Your task to perform on an android device: open app "VLC for Android" Image 0: 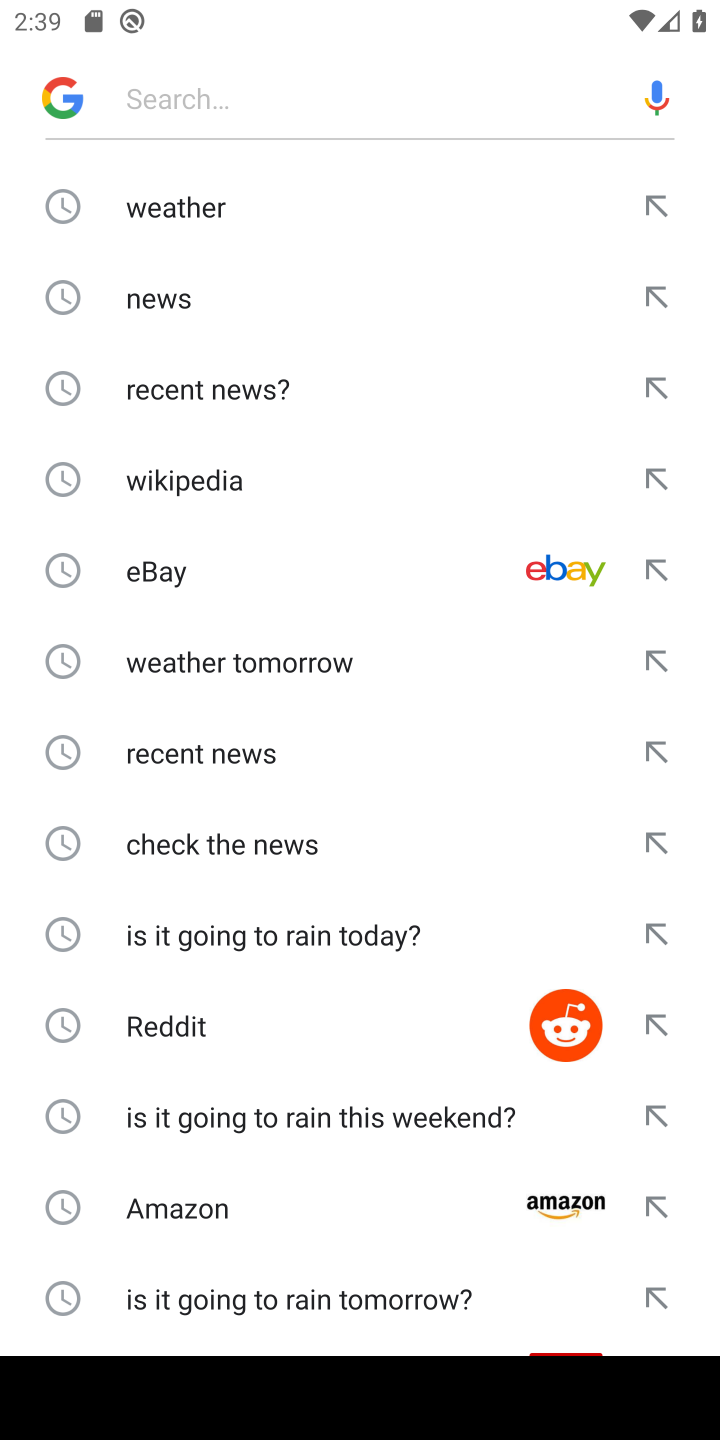
Step 0: press home button
Your task to perform on an android device: open app "VLC for Android" Image 1: 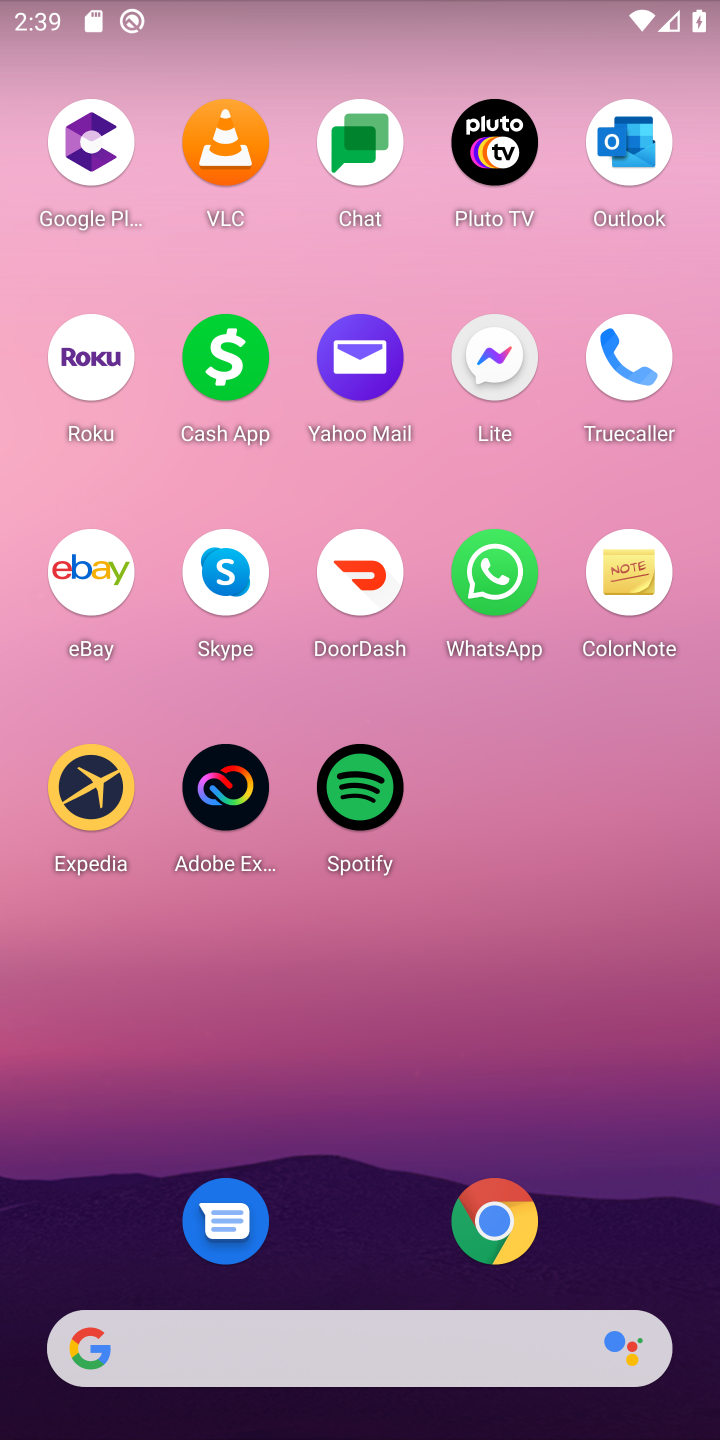
Step 1: drag from (358, 1242) to (383, 33)
Your task to perform on an android device: open app "VLC for Android" Image 2: 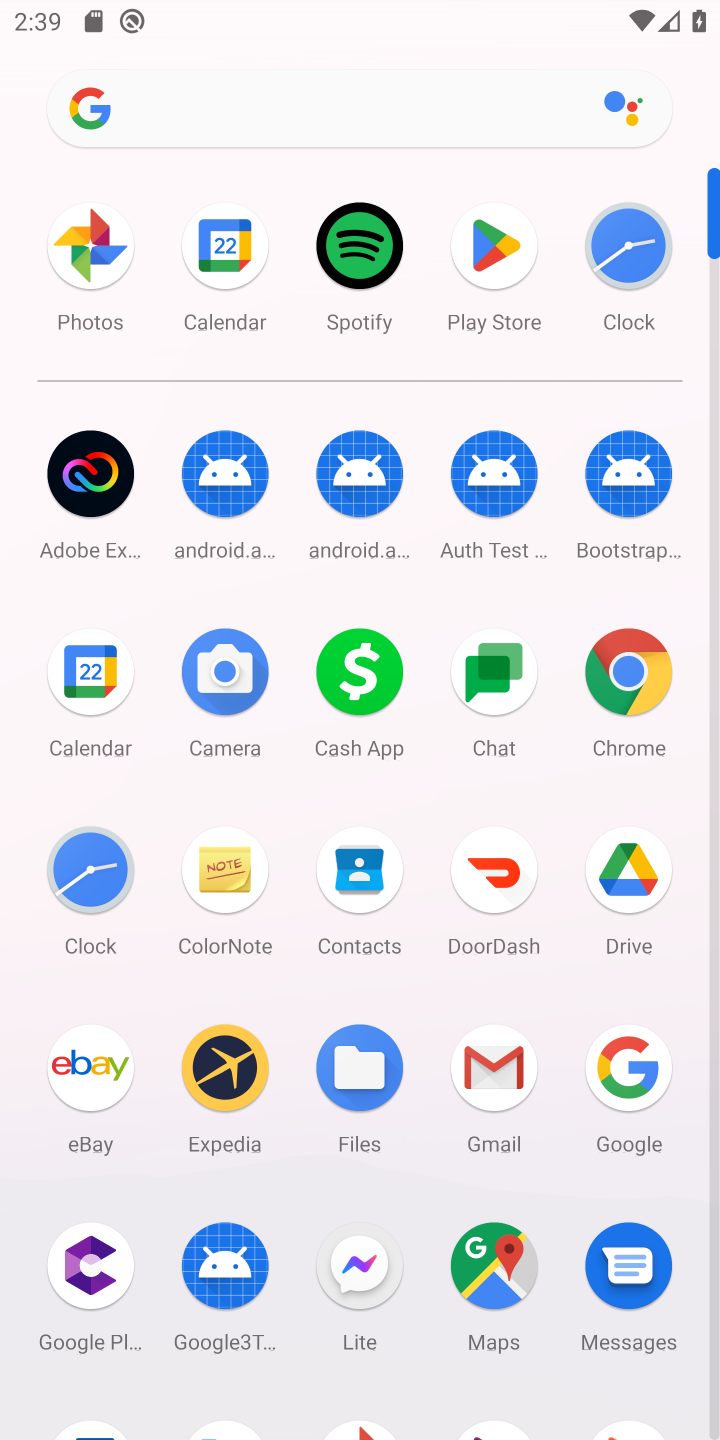
Step 2: drag from (385, 1112) to (405, 108)
Your task to perform on an android device: open app "VLC for Android" Image 3: 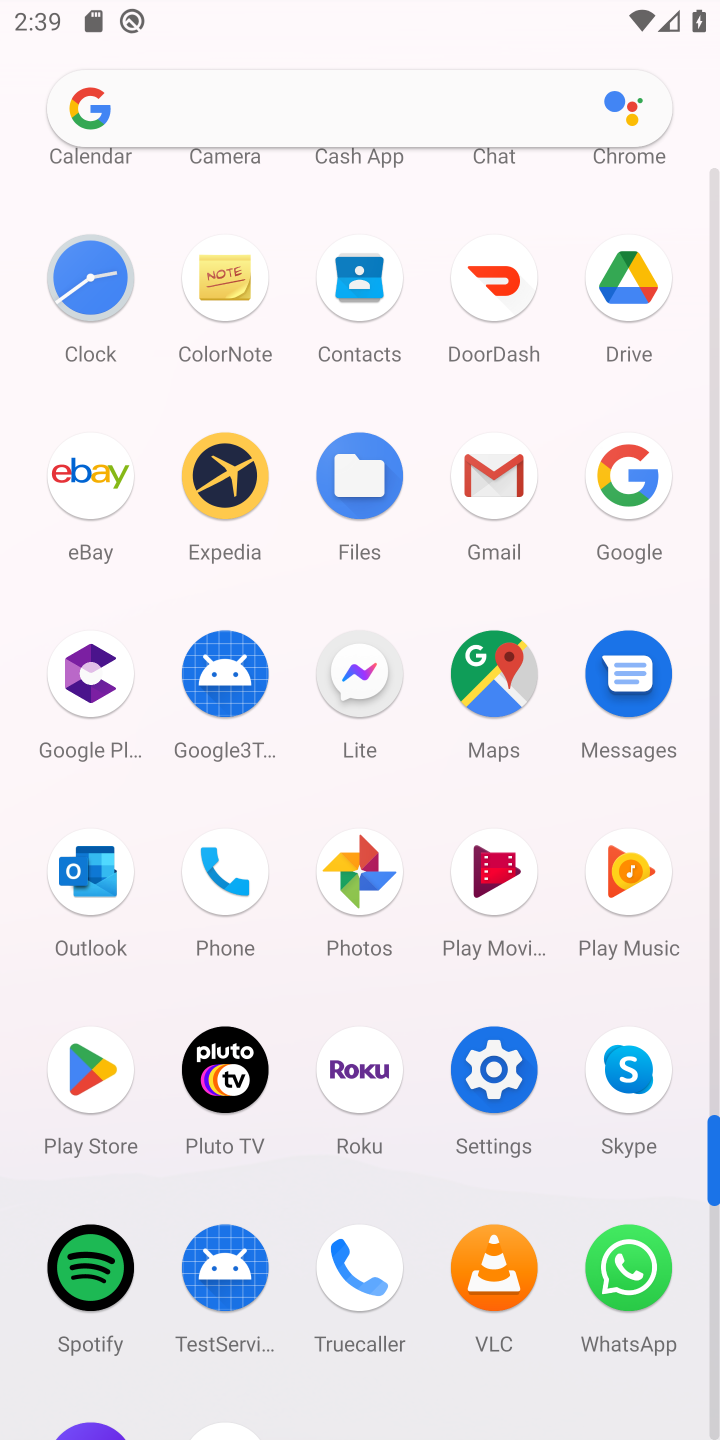
Step 3: click (90, 1063)
Your task to perform on an android device: open app "VLC for Android" Image 4: 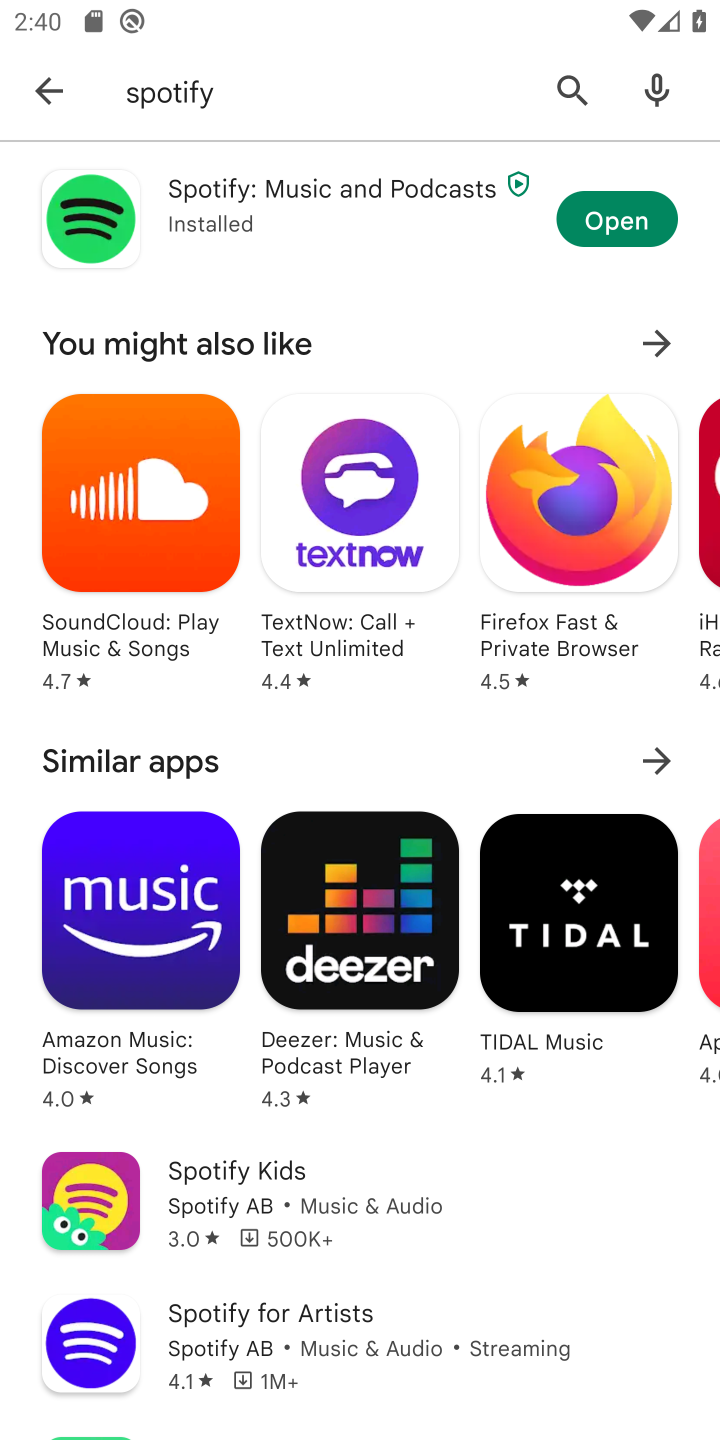
Step 4: click (563, 85)
Your task to perform on an android device: open app "VLC for Android" Image 5: 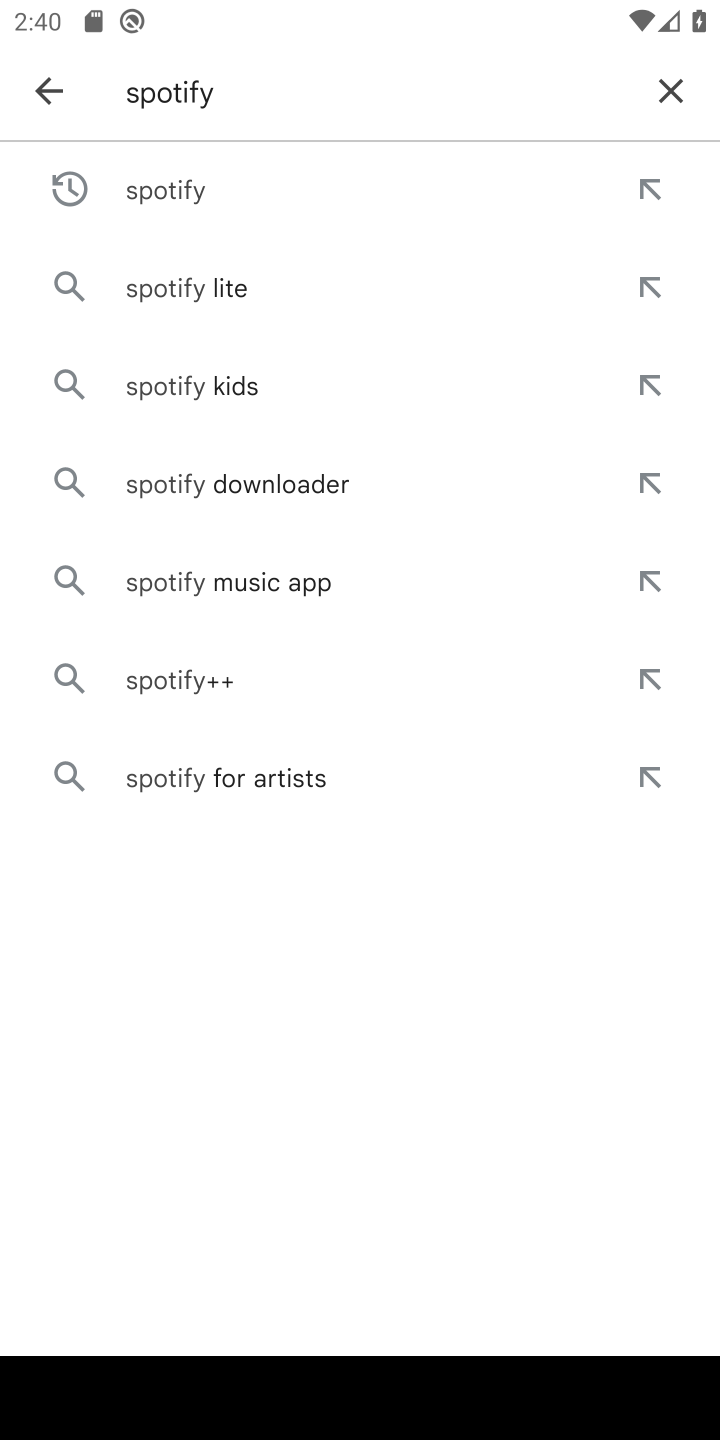
Step 5: click (673, 94)
Your task to perform on an android device: open app "VLC for Android" Image 6: 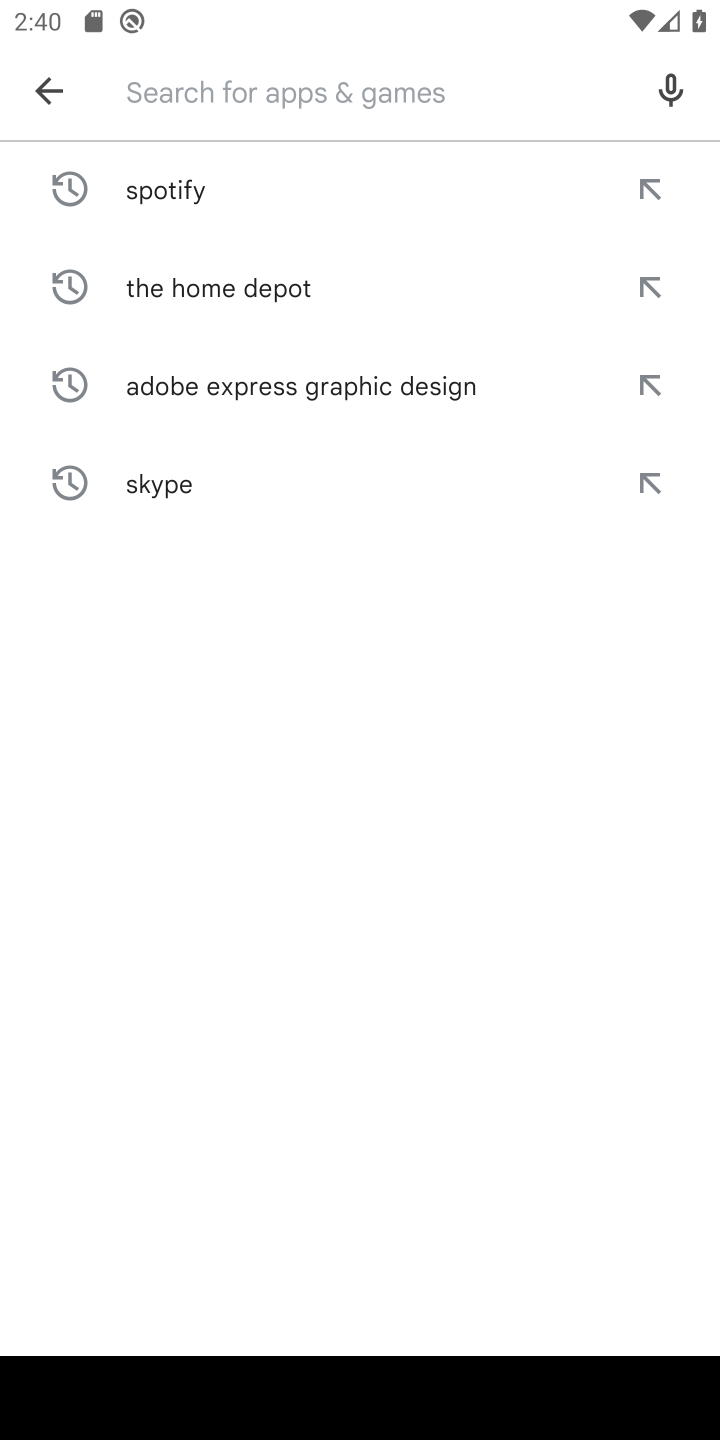
Step 6: type "VLC for Android"
Your task to perform on an android device: open app "VLC for Android" Image 7: 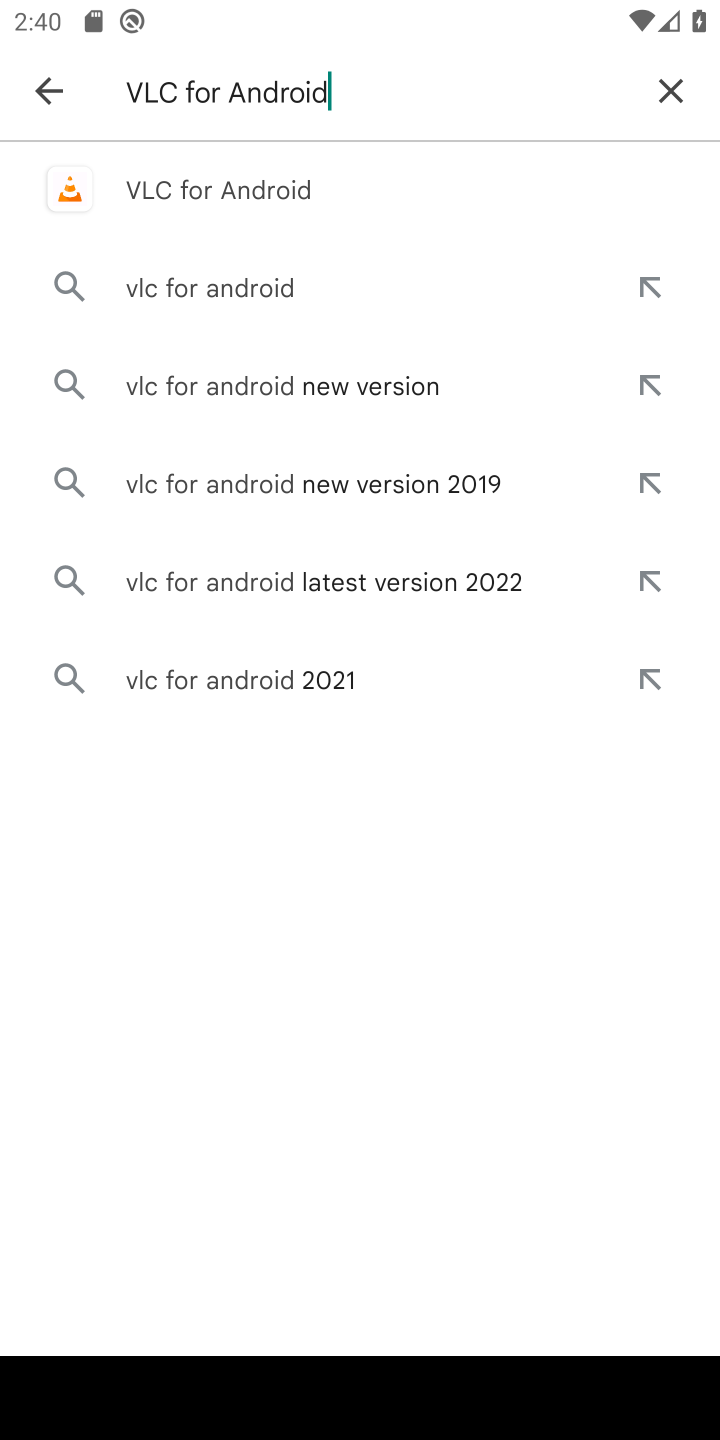
Step 7: click (280, 185)
Your task to perform on an android device: open app "VLC for Android" Image 8: 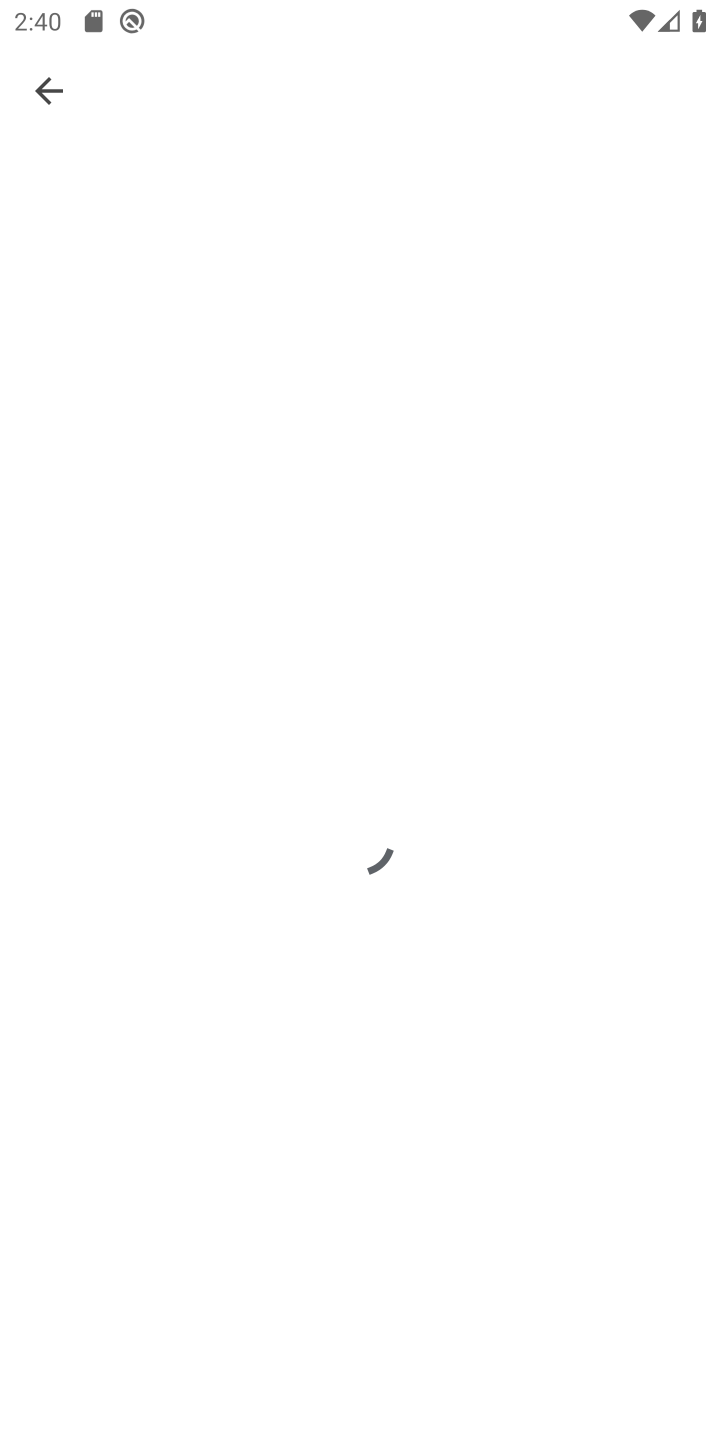
Step 8: click (282, 185)
Your task to perform on an android device: open app "VLC for Android" Image 9: 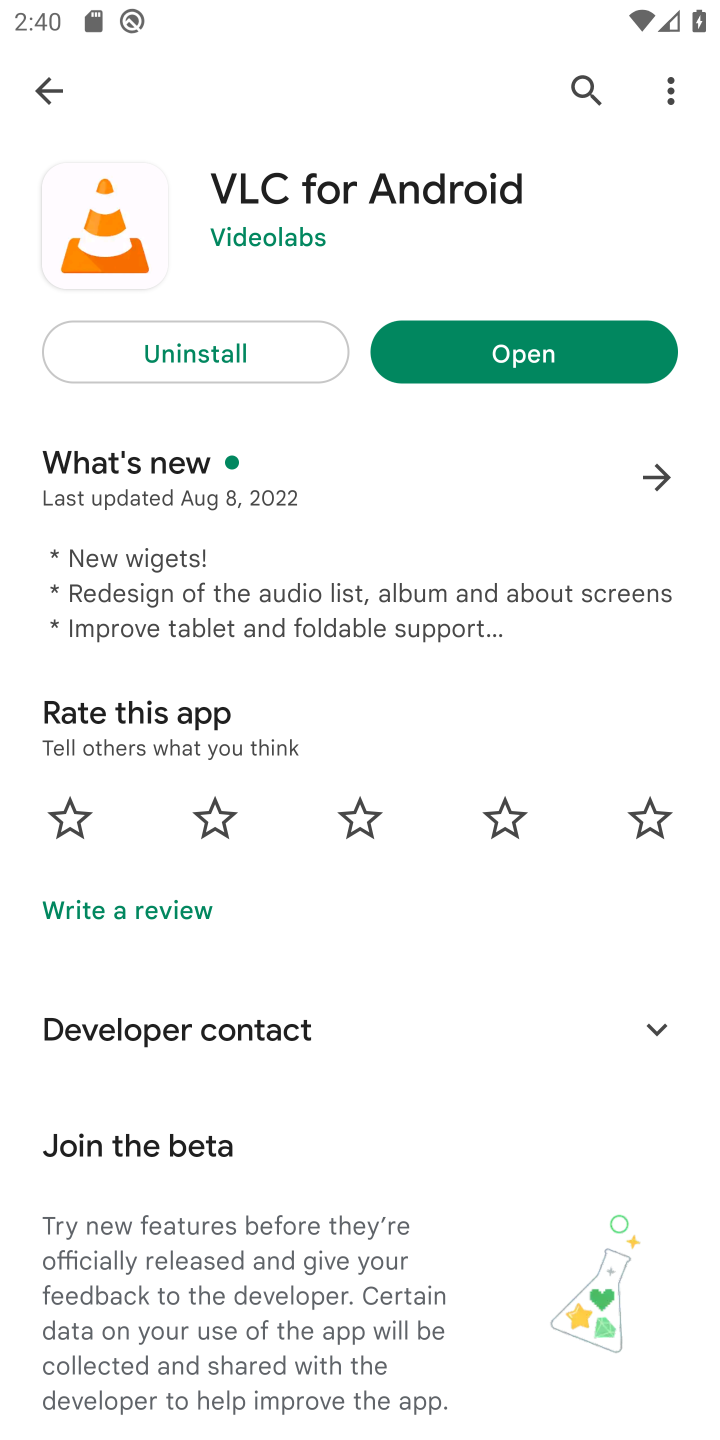
Step 9: click (533, 358)
Your task to perform on an android device: open app "VLC for Android" Image 10: 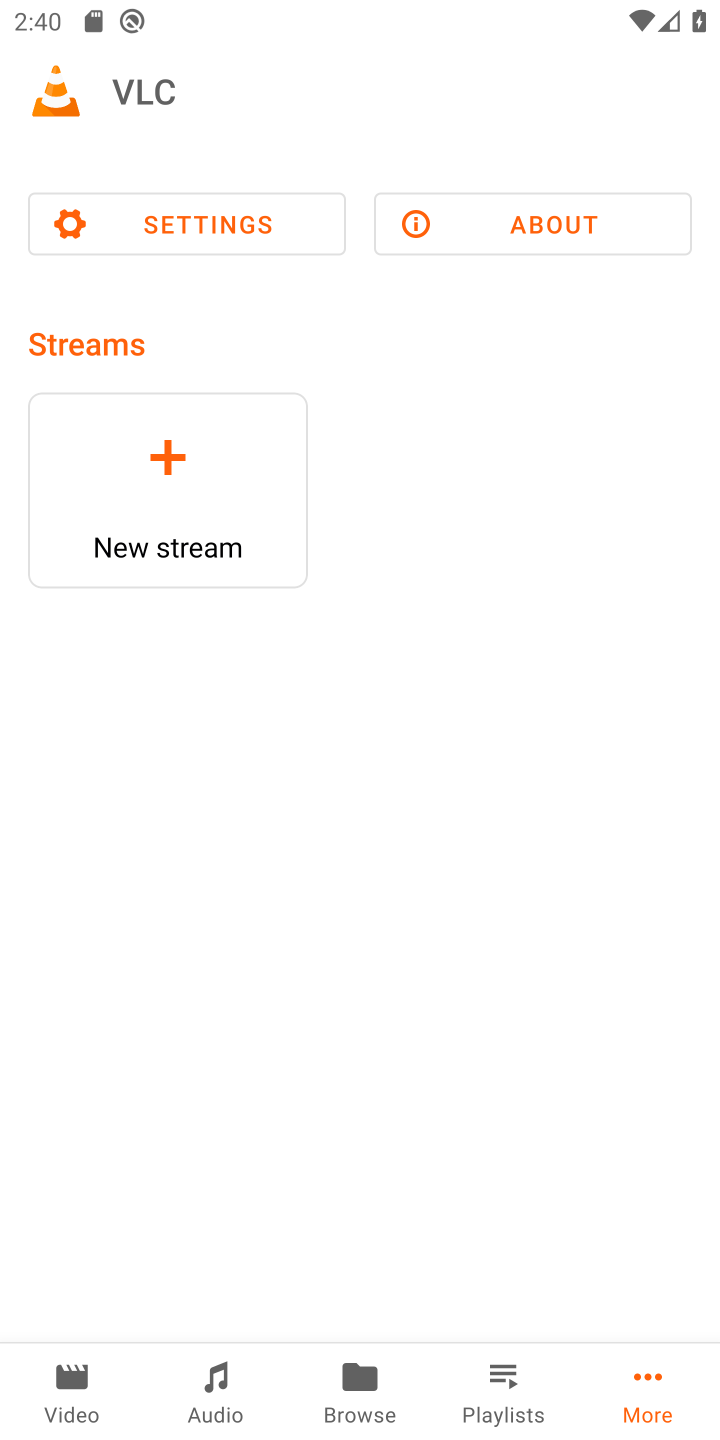
Step 10: task complete